Your task to perform on an android device: Go to wifi settings Image 0: 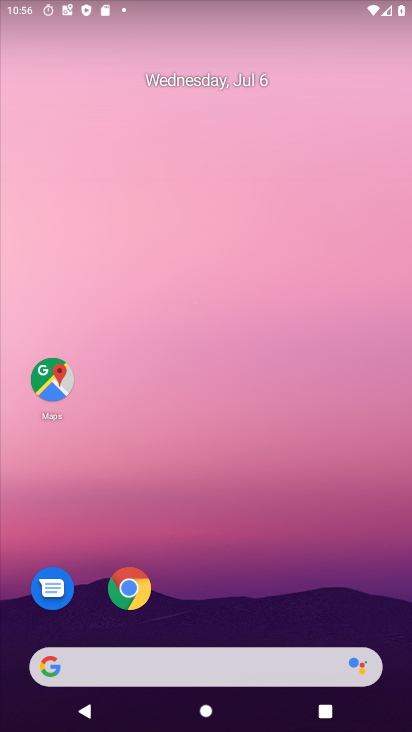
Step 0: drag from (230, 724) to (238, 142)
Your task to perform on an android device: Go to wifi settings Image 1: 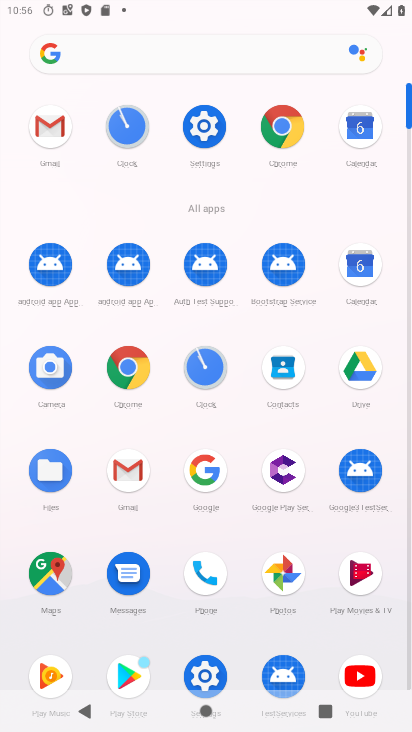
Step 1: click (193, 121)
Your task to perform on an android device: Go to wifi settings Image 2: 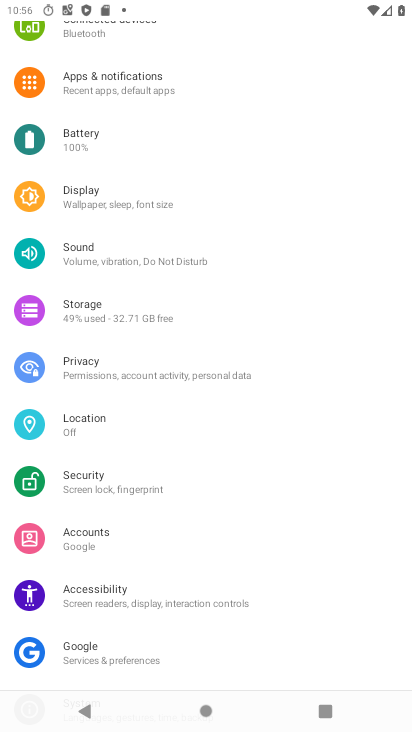
Step 2: drag from (236, 73) to (253, 452)
Your task to perform on an android device: Go to wifi settings Image 3: 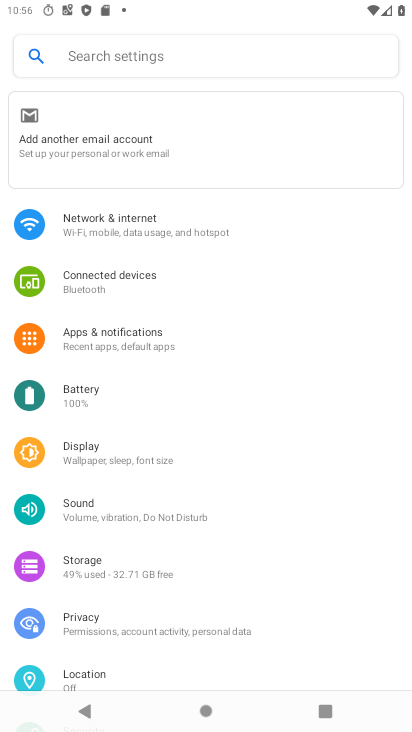
Step 3: click (123, 232)
Your task to perform on an android device: Go to wifi settings Image 4: 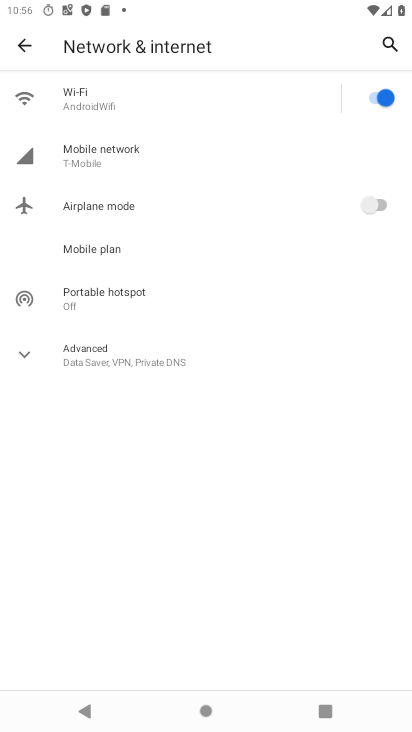
Step 4: click (113, 98)
Your task to perform on an android device: Go to wifi settings Image 5: 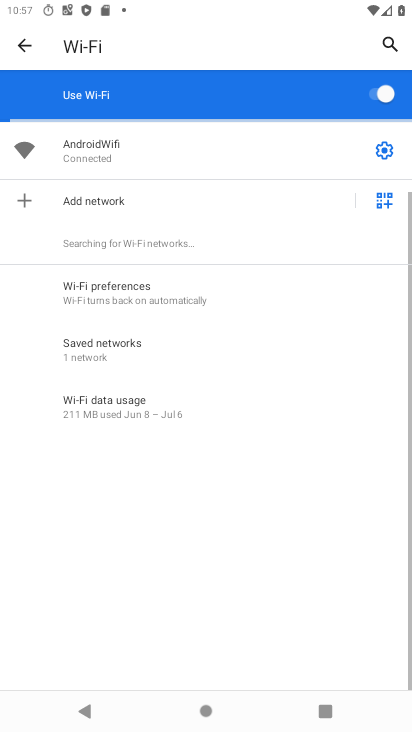
Step 5: task complete